Your task to perform on an android device: turn on improve location accuracy Image 0: 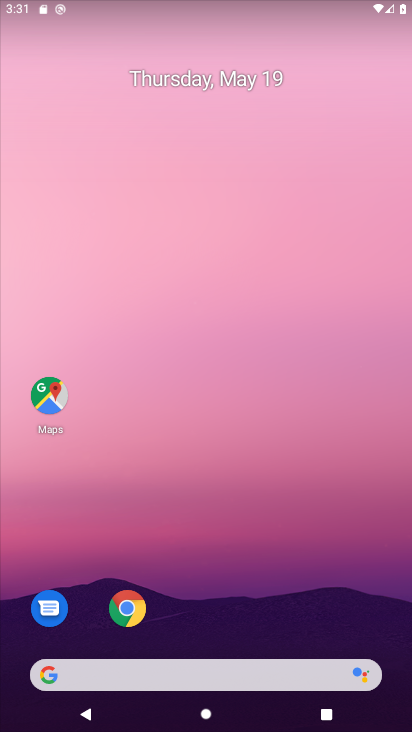
Step 0: drag from (205, 628) to (171, 213)
Your task to perform on an android device: turn on improve location accuracy Image 1: 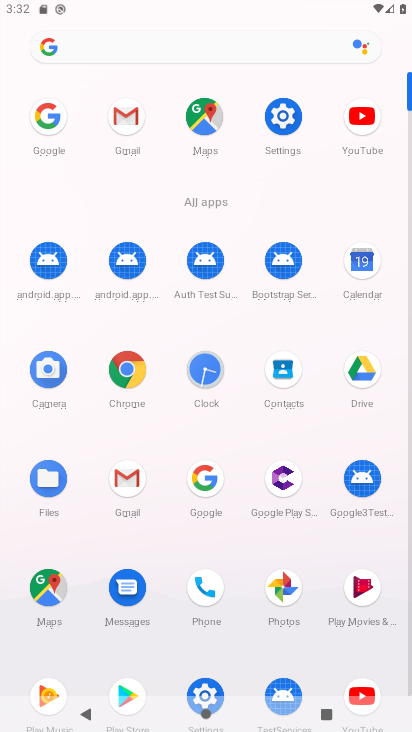
Step 1: click (280, 119)
Your task to perform on an android device: turn on improve location accuracy Image 2: 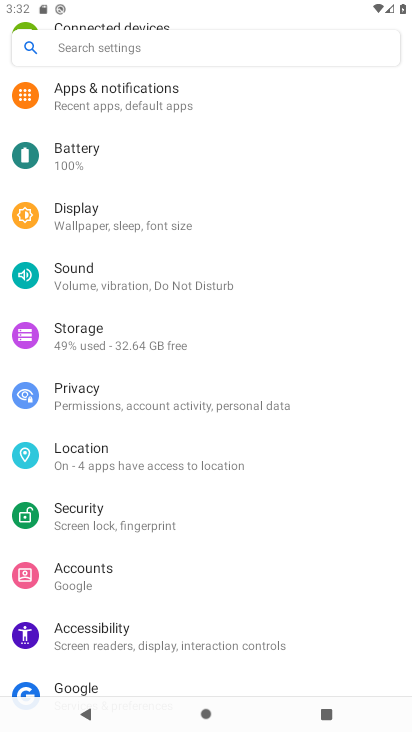
Step 2: click (71, 462)
Your task to perform on an android device: turn on improve location accuracy Image 3: 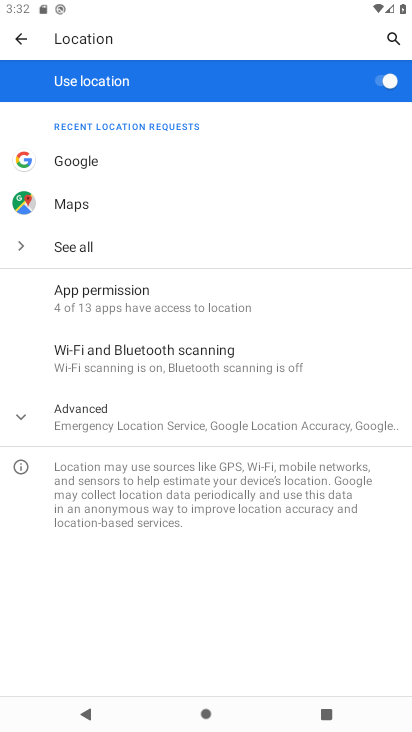
Step 3: click (91, 405)
Your task to perform on an android device: turn on improve location accuracy Image 4: 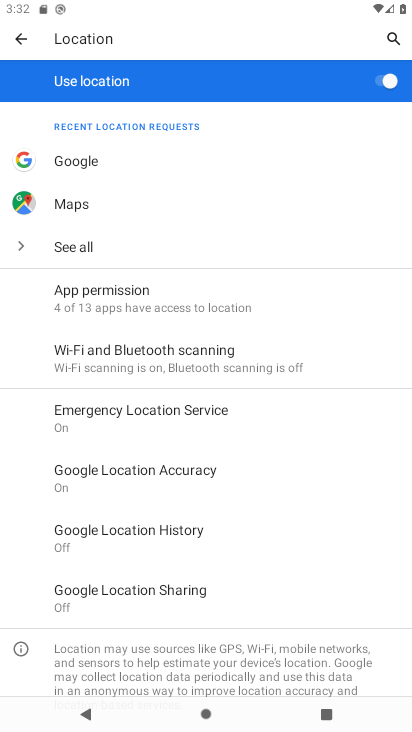
Step 4: click (164, 477)
Your task to perform on an android device: turn on improve location accuracy Image 5: 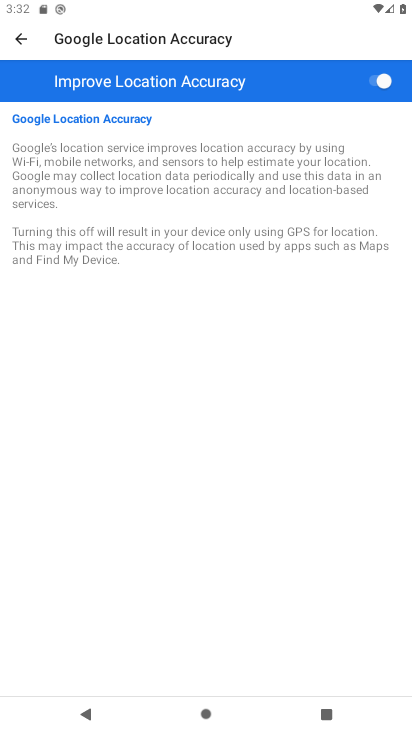
Step 5: task complete